Your task to perform on an android device: Open internet settings Image 0: 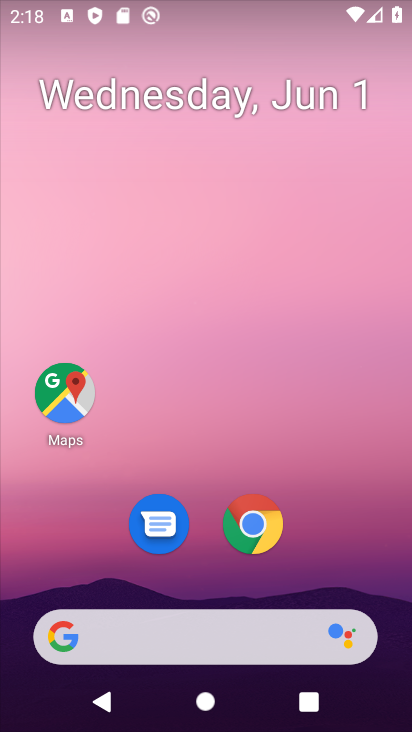
Step 0: drag from (220, 462) to (200, 95)
Your task to perform on an android device: Open internet settings Image 1: 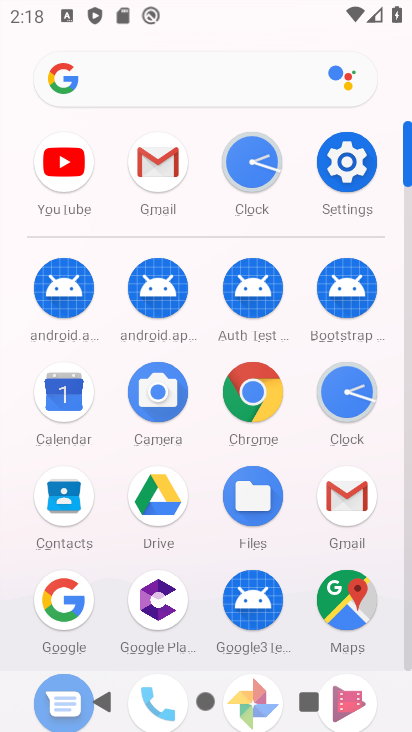
Step 1: click (351, 172)
Your task to perform on an android device: Open internet settings Image 2: 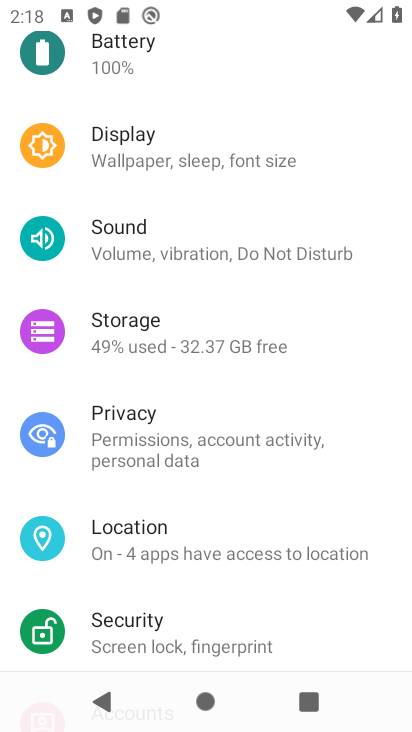
Step 2: drag from (265, 145) to (284, 624)
Your task to perform on an android device: Open internet settings Image 3: 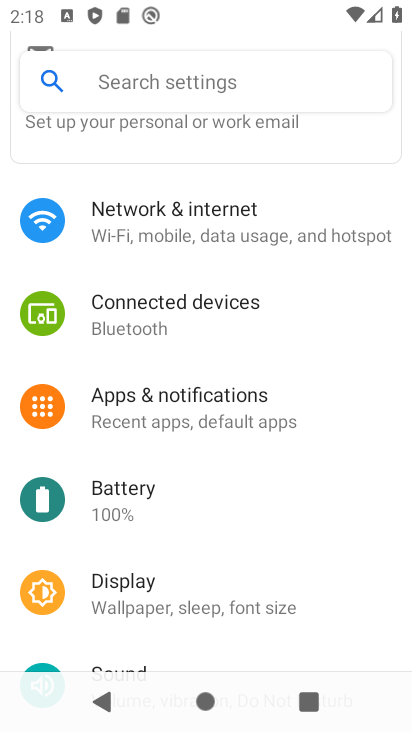
Step 3: drag from (227, 178) to (220, 404)
Your task to perform on an android device: Open internet settings Image 4: 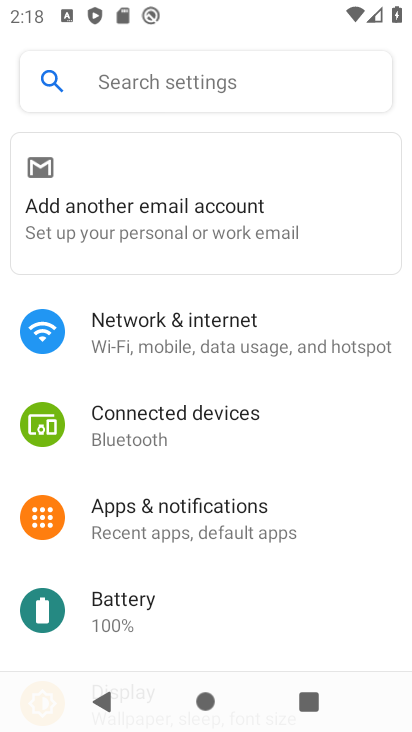
Step 4: click (220, 338)
Your task to perform on an android device: Open internet settings Image 5: 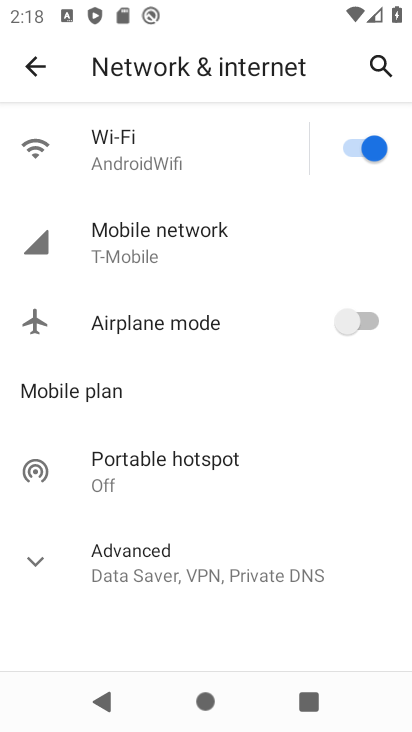
Step 5: task complete